Your task to perform on an android device: toggle airplane mode Image 0: 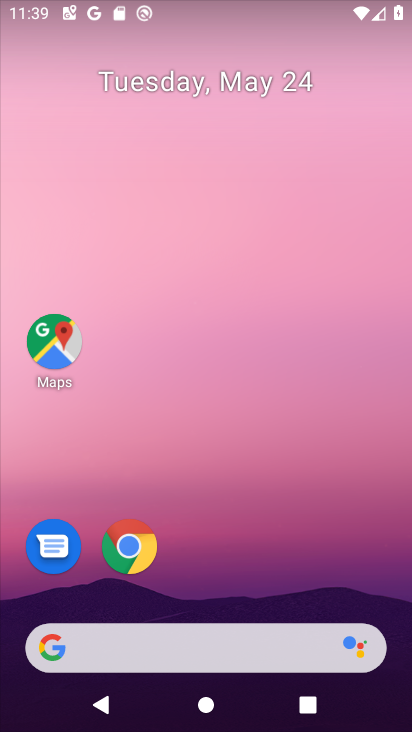
Step 0: drag from (240, 599) to (308, 0)
Your task to perform on an android device: toggle airplane mode Image 1: 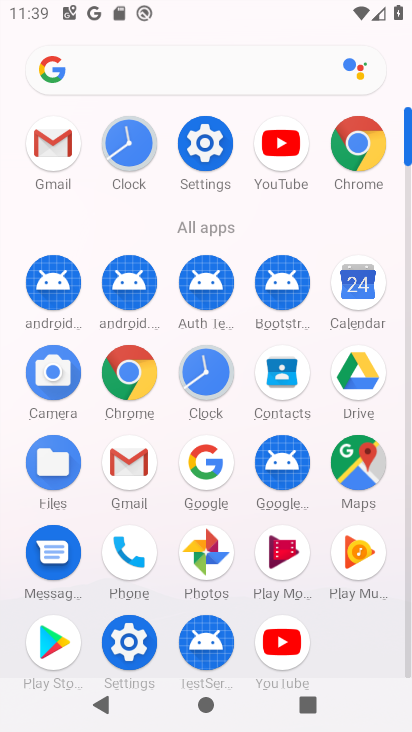
Step 1: click (208, 153)
Your task to perform on an android device: toggle airplane mode Image 2: 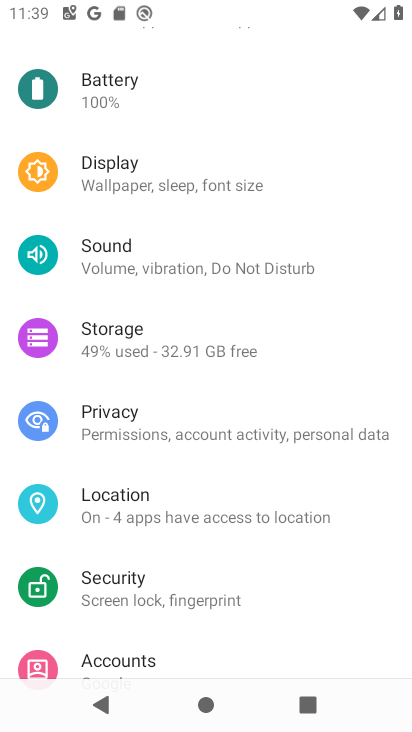
Step 2: drag from (215, 148) to (195, 615)
Your task to perform on an android device: toggle airplane mode Image 3: 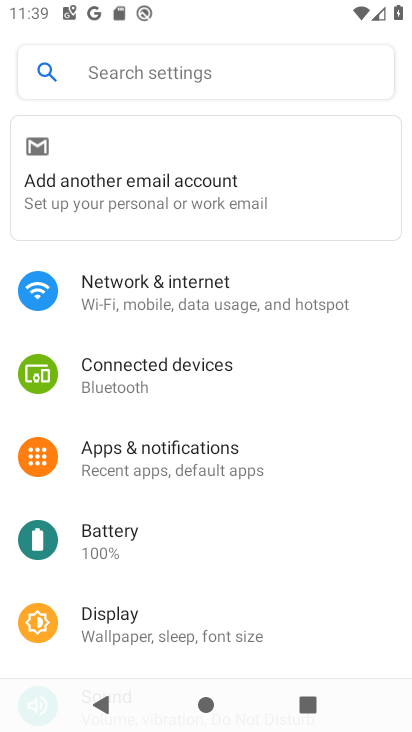
Step 3: click (185, 296)
Your task to perform on an android device: toggle airplane mode Image 4: 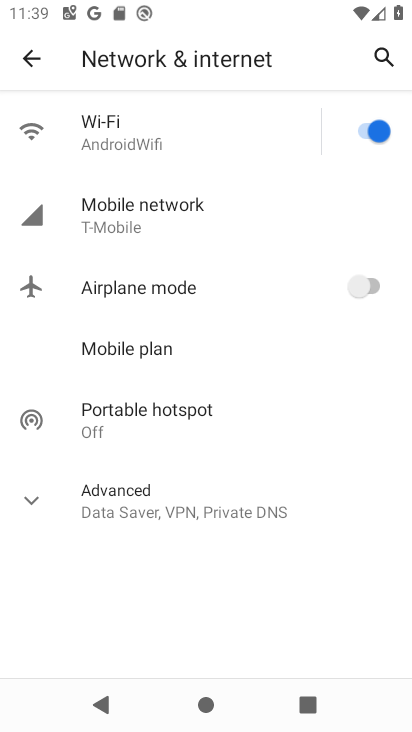
Step 4: click (381, 278)
Your task to perform on an android device: toggle airplane mode Image 5: 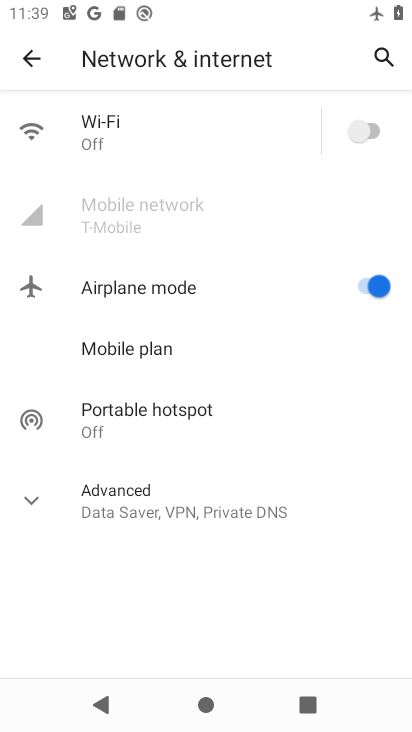
Step 5: task complete